Your task to perform on an android device: turn on the 24-hour format for clock Image 0: 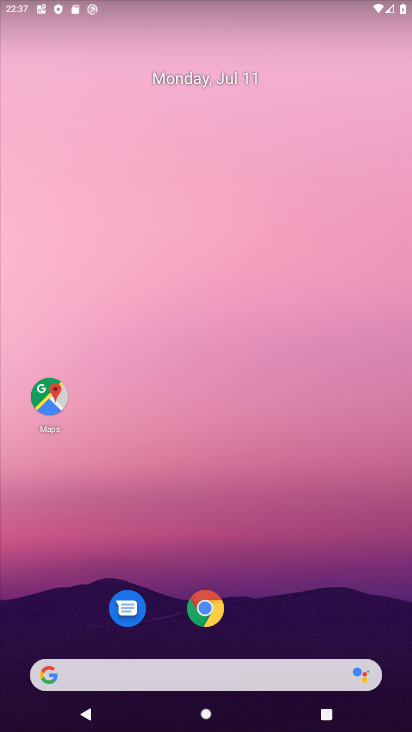
Step 0: drag from (84, 606) to (219, 151)
Your task to perform on an android device: turn on the 24-hour format for clock Image 1: 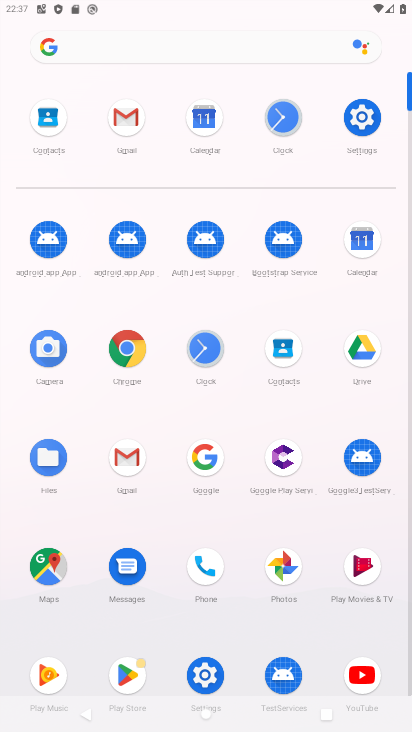
Step 1: click (228, 366)
Your task to perform on an android device: turn on the 24-hour format for clock Image 2: 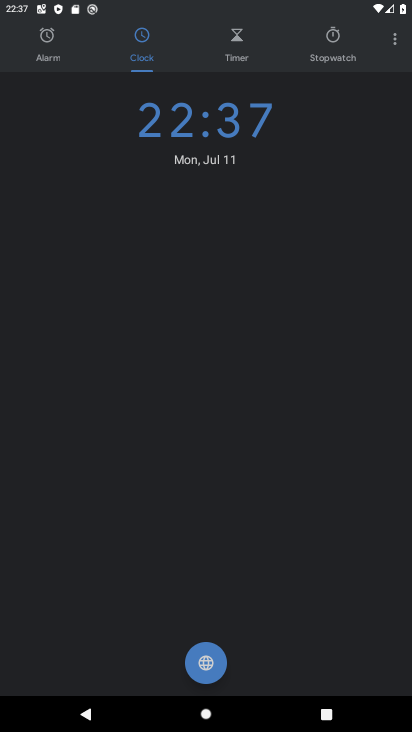
Step 2: click (210, 355)
Your task to perform on an android device: turn on the 24-hour format for clock Image 3: 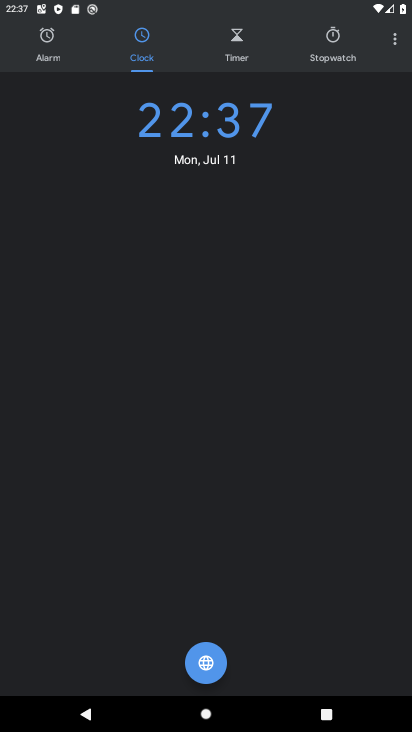
Step 3: click (381, 33)
Your task to perform on an android device: turn on the 24-hour format for clock Image 4: 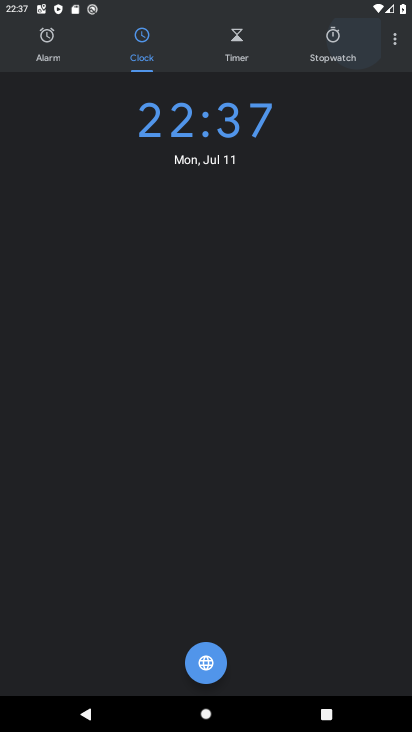
Step 4: click (399, 38)
Your task to perform on an android device: turn on the 24-hour format for clock Image 5: 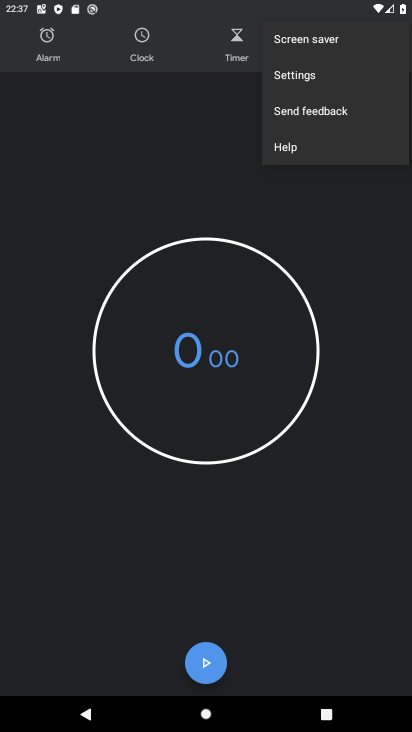
Step 5: click (302, 69)
Your task to perform on an android device: turn on the 24-hour format for clock Image 6: 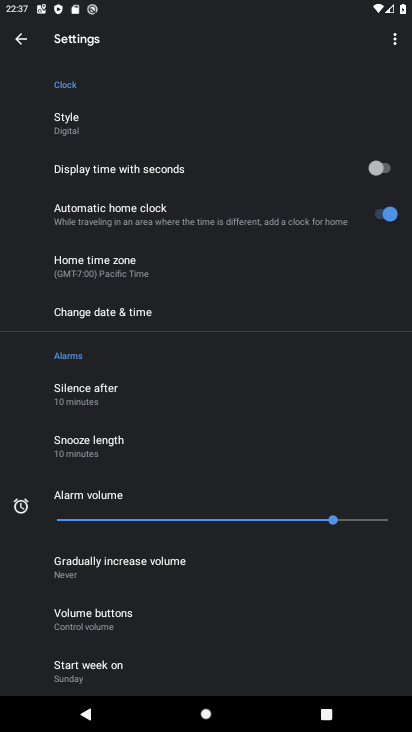
Step 6: drag from (152, 663) to (153, 229)
Your task to perform on an android device: turn on the 24-hour format for clock Image 7: 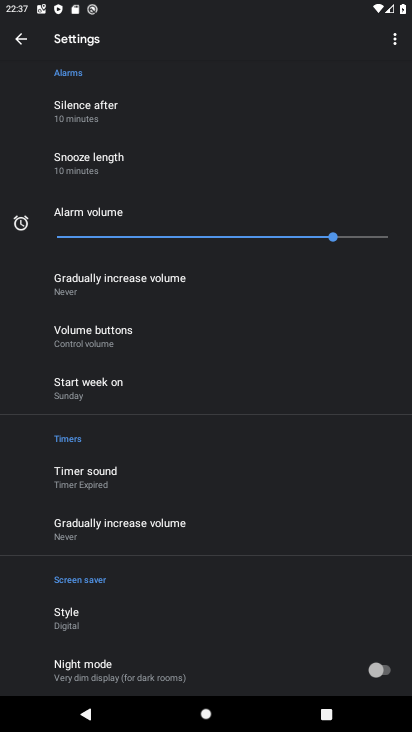
Step 7: drag from (113, 643) to (237, 121)
Your task to perform on an android device: turn on the 24-hour format for clock Image 8: 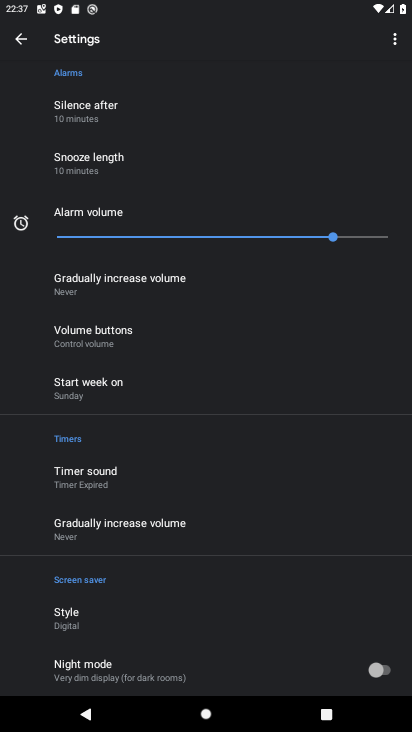
Step 8: drag from (230, 432) to (196, 251)
Your task to perform on an android device: turn on the 24-hour format for clock Image 9: 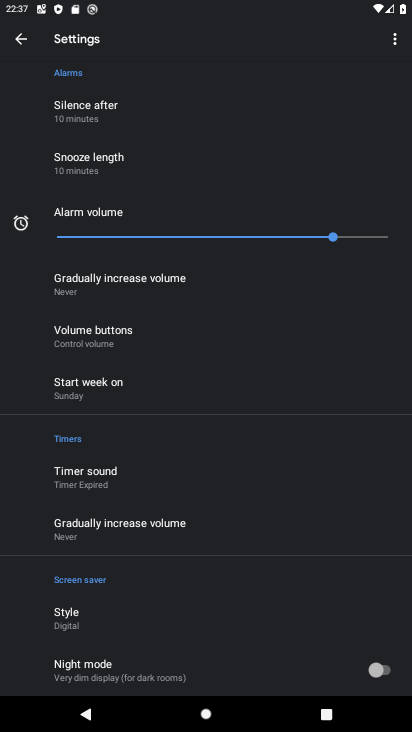
Step 9: drag from (193, 329) to (204, 698)
Your task to perform on an android device: turn on the 24-hour format for clock Image 10: 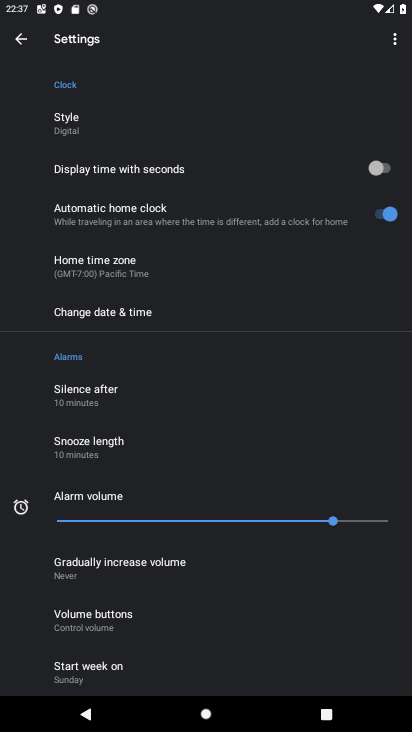
Step 10: drag from (219, 253) to (204, 607)
Your task to perform on an android device: turn on the 24-hour format for clock Image 11: 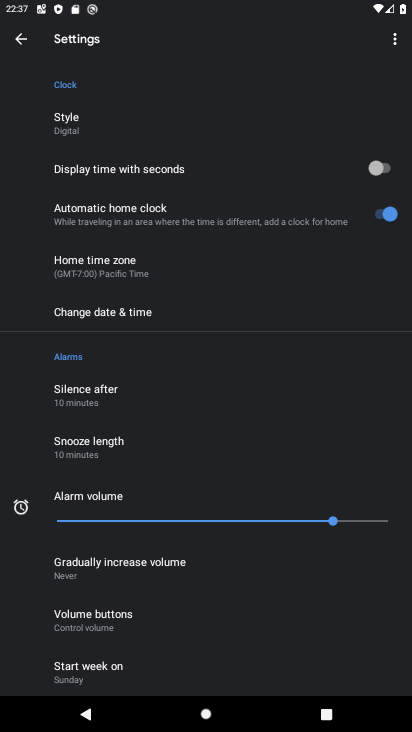
Step 11: drag from (192, 103) to (139, 685)
Your task to perform on an android device: turn on the 24-hour format for clock Image 12: 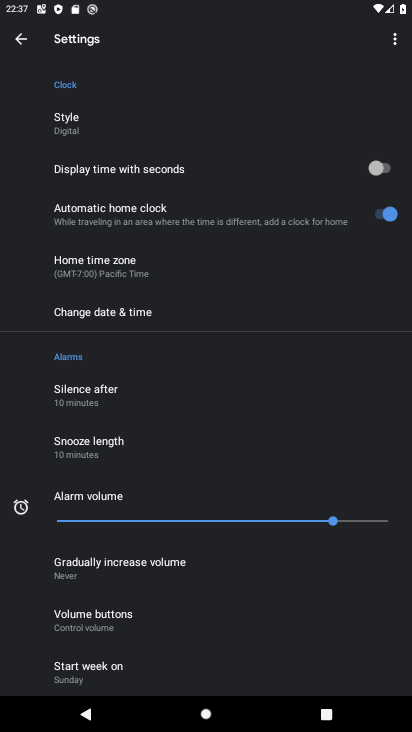
Step 12: click (131, 316)
Your task to perform on an android device: turn on the 24-hour format for clock Image 13: 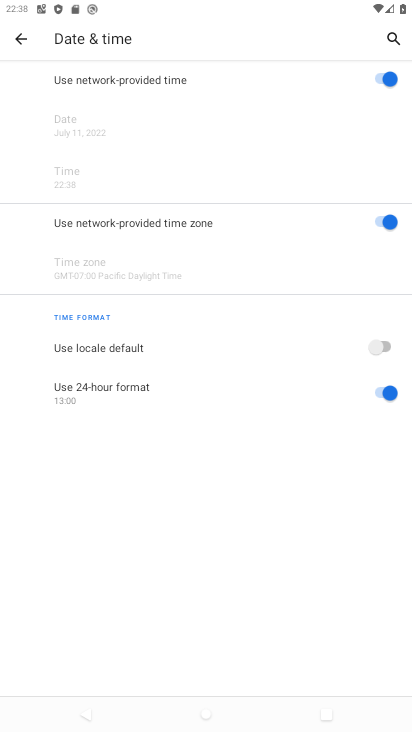
Step 13: task complete